Your task to perform on an android device: Open the web browser Image 0: 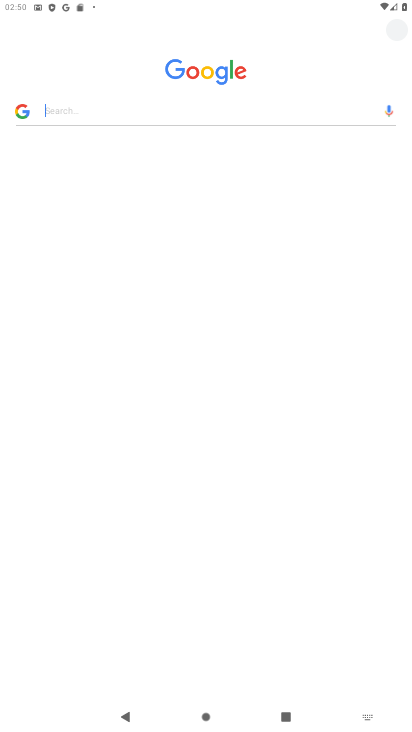
Step 0: press home button
Your task to perform on an android device: Open the web browser Image 1: 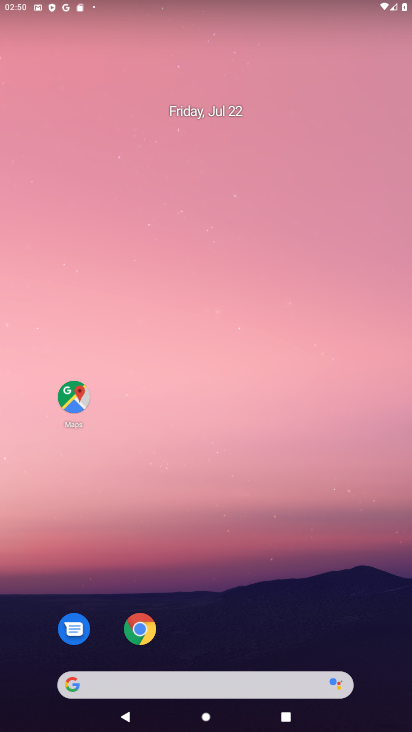
Step 1: click (147, 629)
Your task to perform on an android device: Open the web browser Image 2: 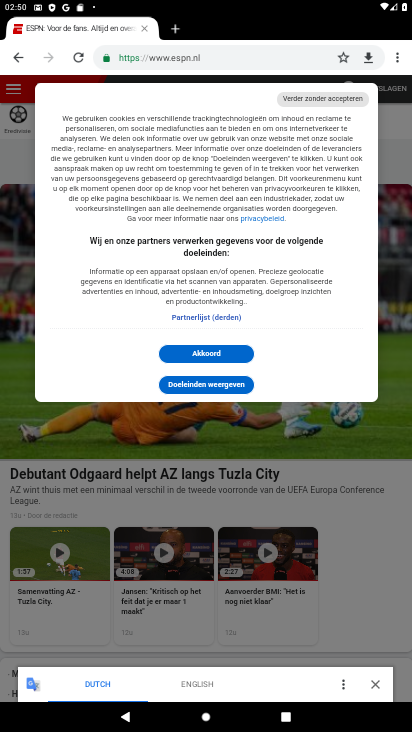
Step 2: task complete